Your task to perform on an android device: snooze an email in the gmail app Image 0: 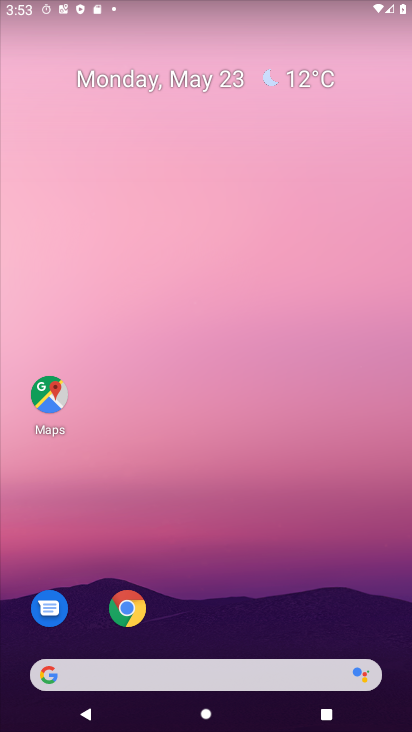
Step 0: drag from (309, 552) to (205, 2)
Your task to perform on an android device: snooze an email in the gmail app Image 1: 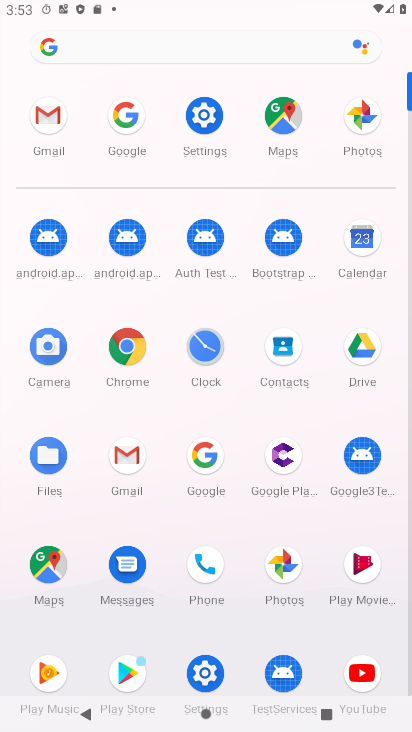
Step 1: click (124, 459)
Your task to perform on an android device: snooze an email in the gmail app Image 2: 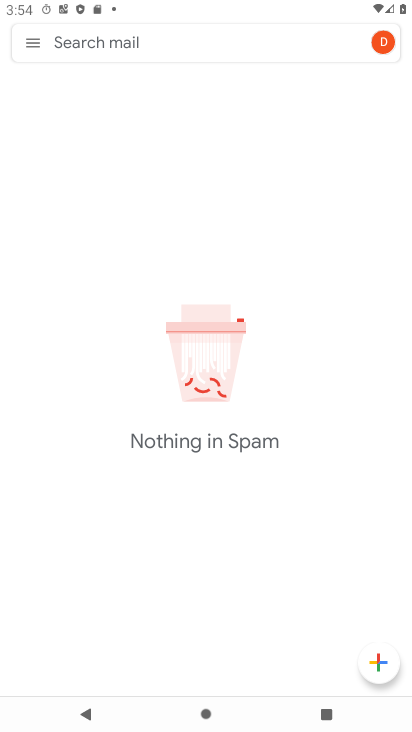
Step 2: task complete